Your task to perform on an android device: What's the weather going to be tomorrow? Image 0: 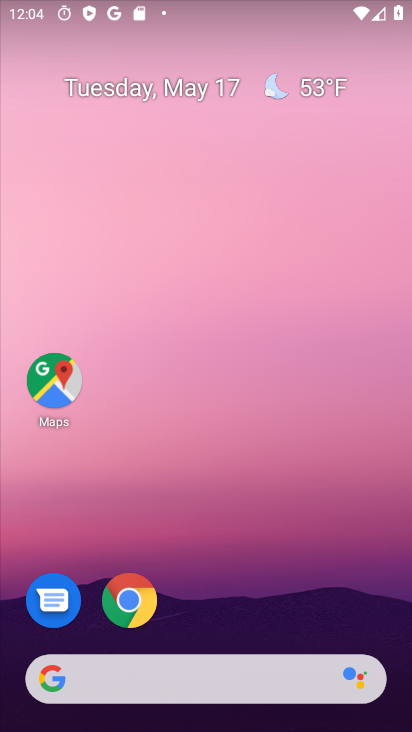
Step 0: drag from (234, 622) to (231, 59)
Your task to perform on an android device: What's the weather going to be tomorrow? Image 1: 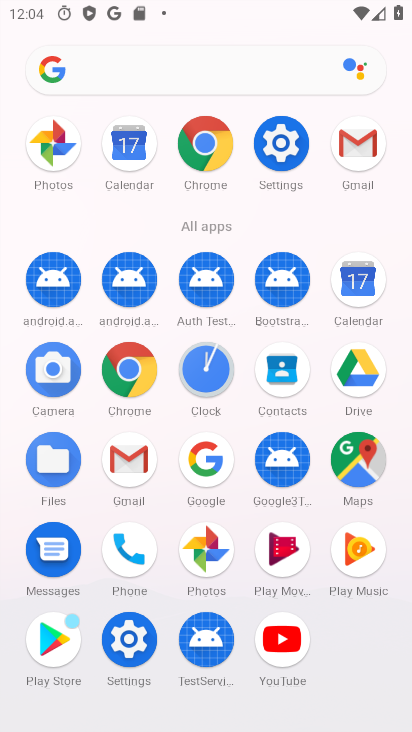
Step 1: click (109, 64)
Your task to perform on an android device: What's the weather going to be tomorrow? Image 2: 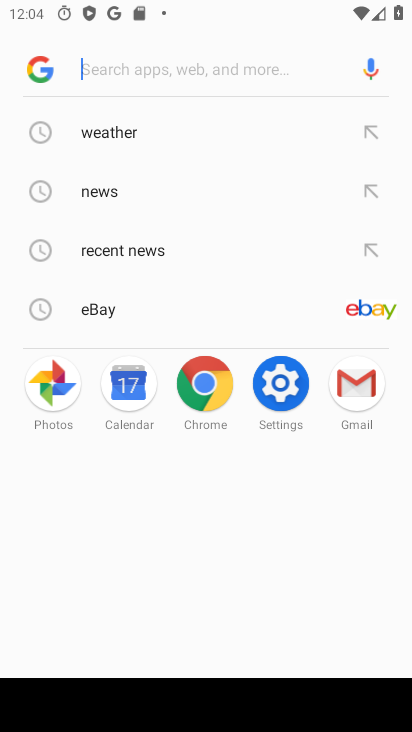
Step 2: type "what's the weather going to be tomorrow"
Your task to perform on an android device: What's the weather going to be tomorrow? Image 3: 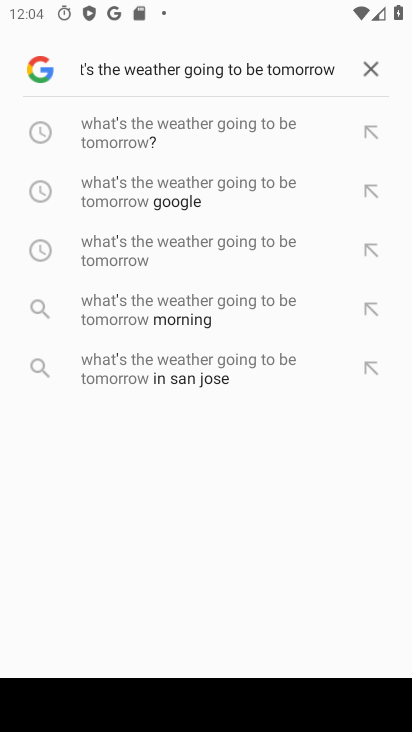
Step 3: click (168, 138)
Your task to perform on an android device: What's the weather going to be tomorrow? Image 4: 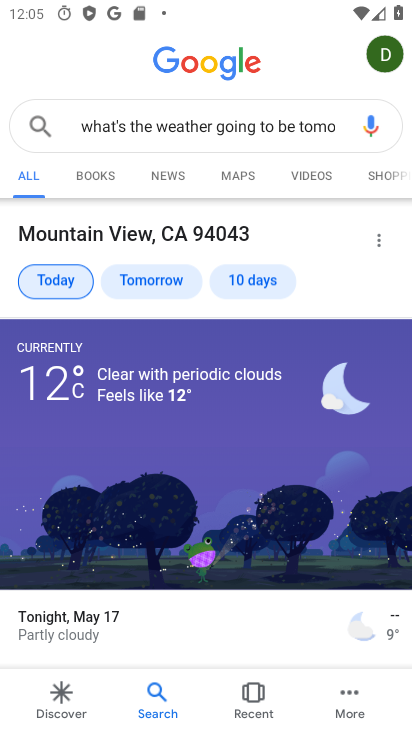
Step 4: task complete